Your task to perform on an android device: change the clock display to digital Image 0: 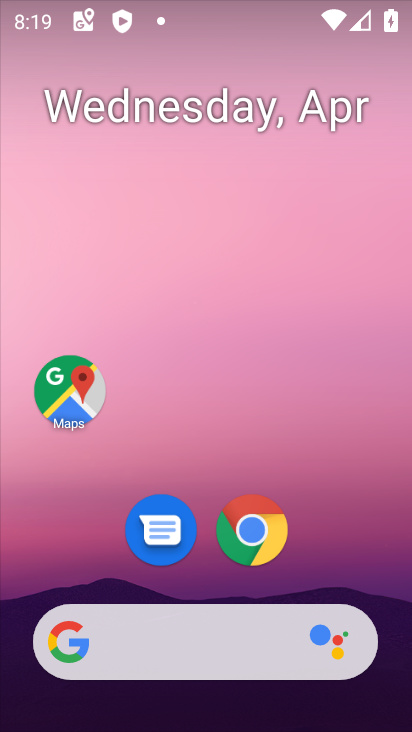
Step 0: drag from (399, 555) to (288, 234)
Your task to perform on an android device: change the clock display to digital Image 1: 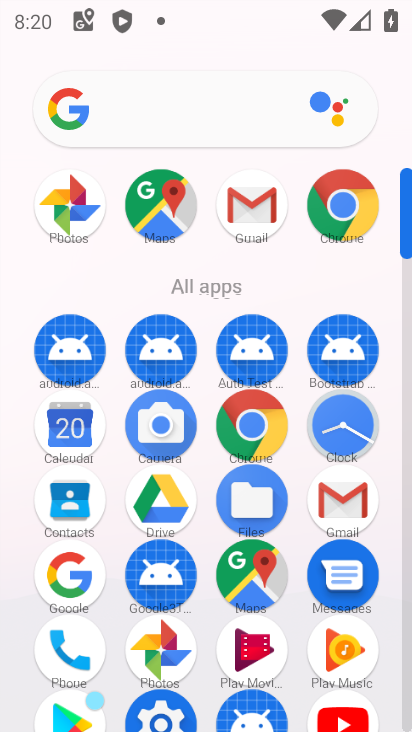
Step 1: click (362, 434)
Your task to perform on an android device: change the clock display to digital Image 2: 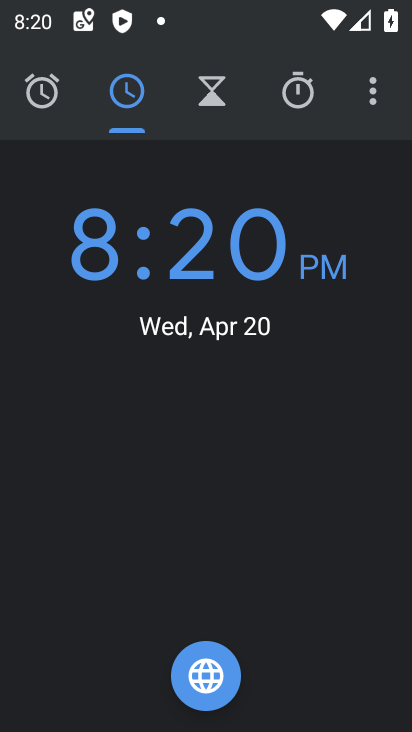
Step 2: click (381, 99)
Your task to perform on an android device: change the clock display to digital Image 3: 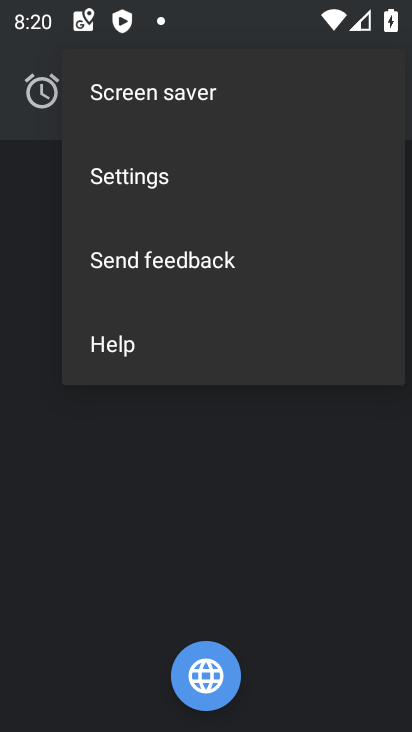
Step 3: click (271, 192)
Your task to perform on an android device: change the clock display to digital Image 4: 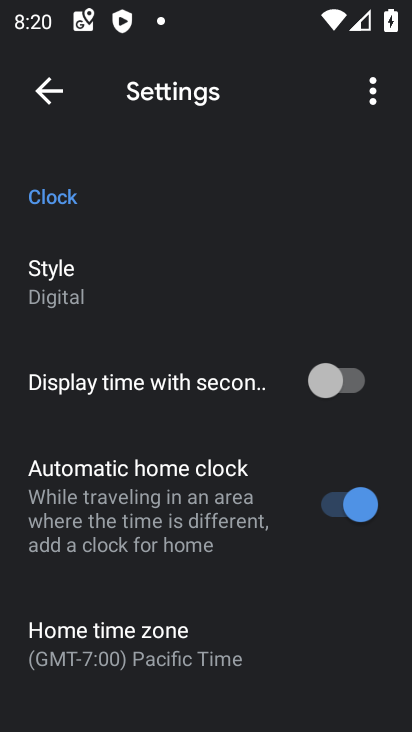
Step 4: task complete